Your task to perform on an android device: turn off priority inbox in the gmail app Image 0: 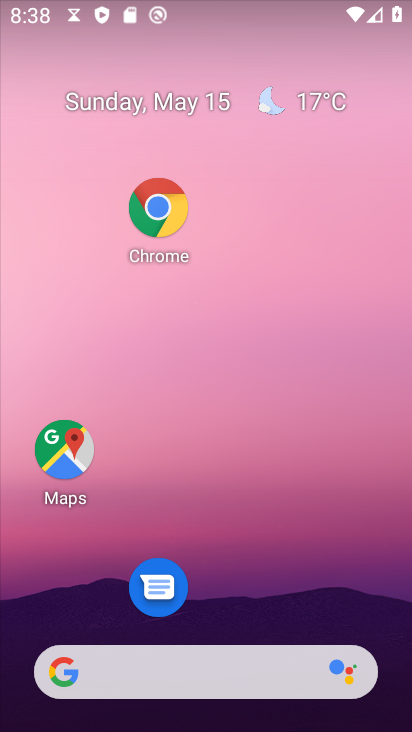
Step 0: drag from (135, 63) to (291, 22)
Your task to perform on an android device: turn off priority inbox in the gmail app Image 1: 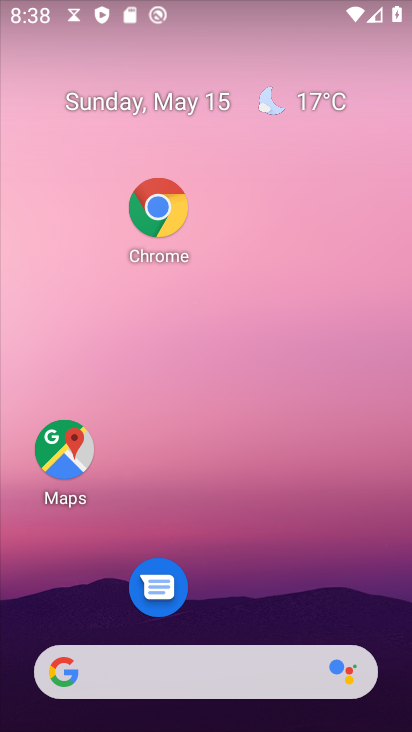
Step 1: click (162, 190)
Your task to perform on an android device: turn off priority inbox in the gmail app Image 2: 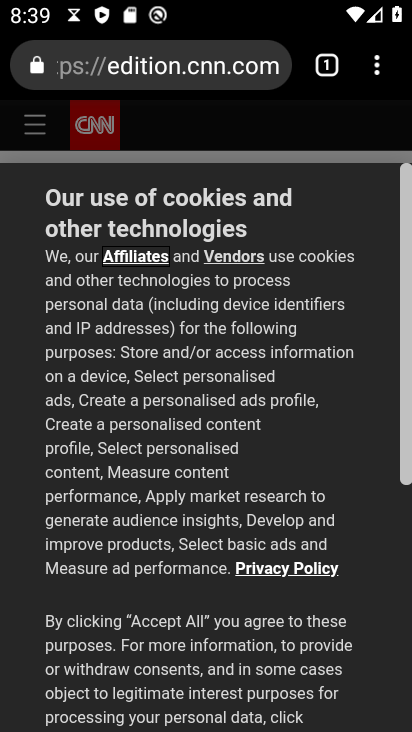
Step 2: drag from (329, 596) to (189, 0)
Your task to perform on an android device: turn off priority inbox in the gmail app Image 3: 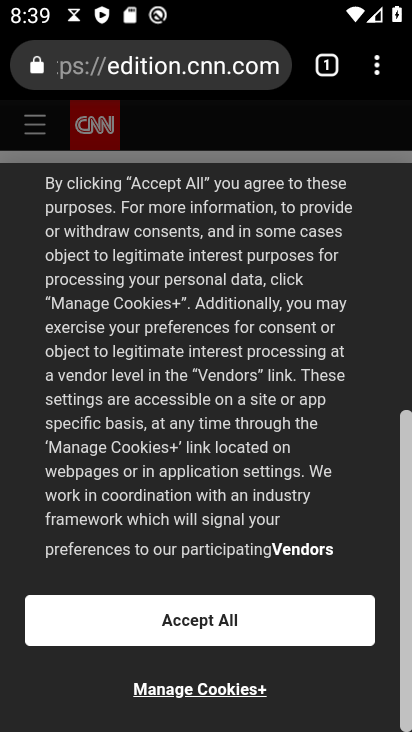
Step 3: drag from (154, 94) to (188, 0)
Your task to perform on an android device: turn off priority inbox in the gmail app Image 4: 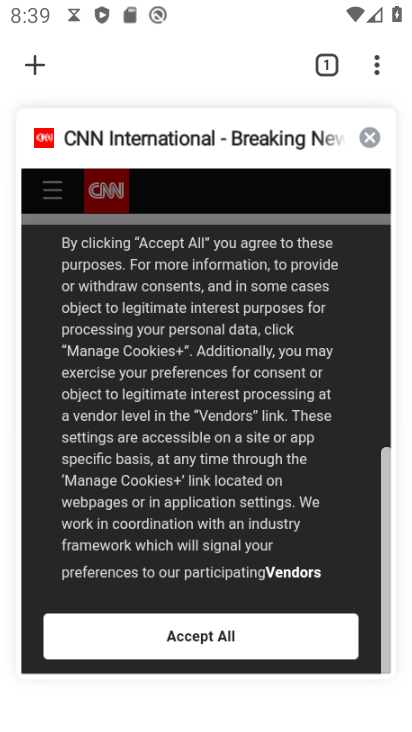
Step 4: click (375, 71)
Your task to perform on an android device: turn off priority inbox in the gmail app Image 5: 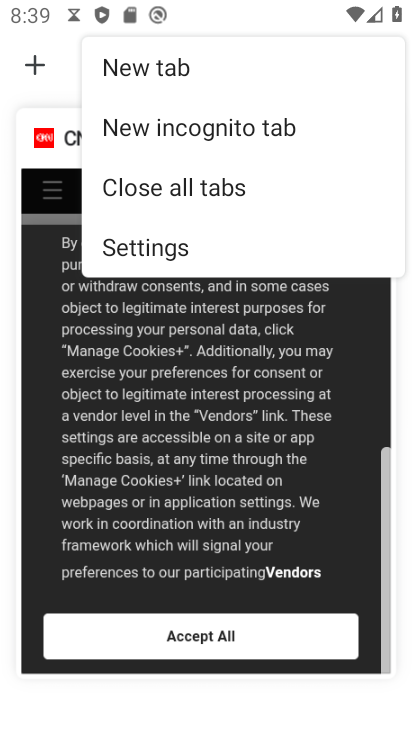
Step 5: drag from (287, 172) to (140, 254)
Your task to perform on an android device: turn off priority inbox in the gmail app Image 6: 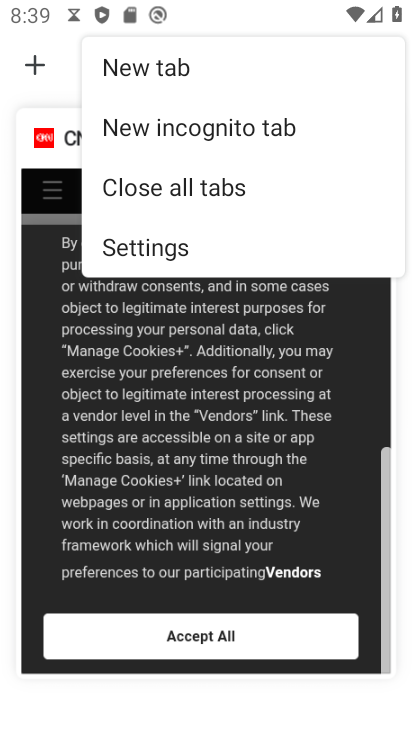
Step 6: click (142, 254)
Your task to perform on an android device: turn off priority inbox in the gmail app Image 7: 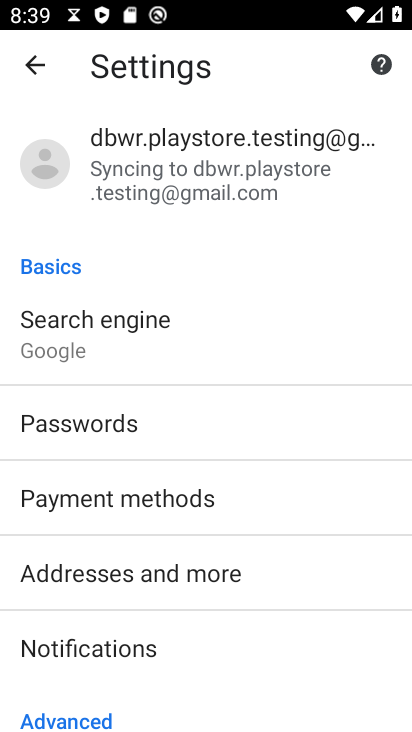
Step 7: drag from (157, 556) to (104, 247)
Your task to perform on an android device: turn off priority inbox in the gmail app Image 8: 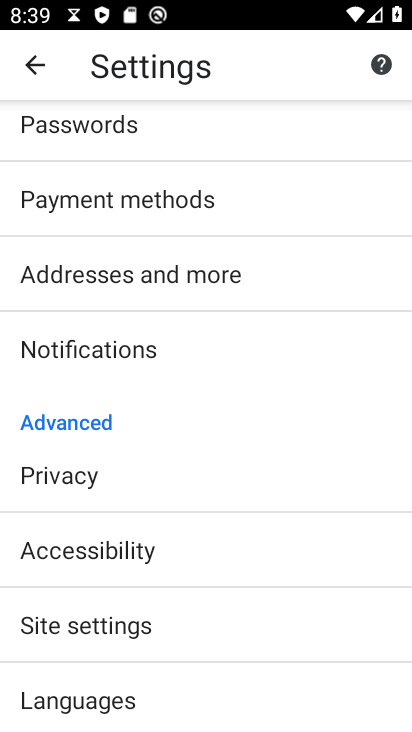
Step 8: press home button
Your task to perform on an android device: turn off priority inbox in the gmail app Image 9: 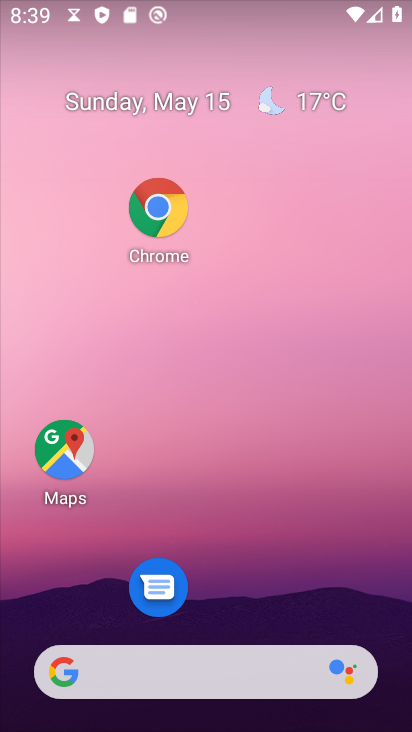
Step 9: drag from (209, 698) to (215, 249)
Your task to perform on an android device: turn off priority inbox in the gmail app Image 10: 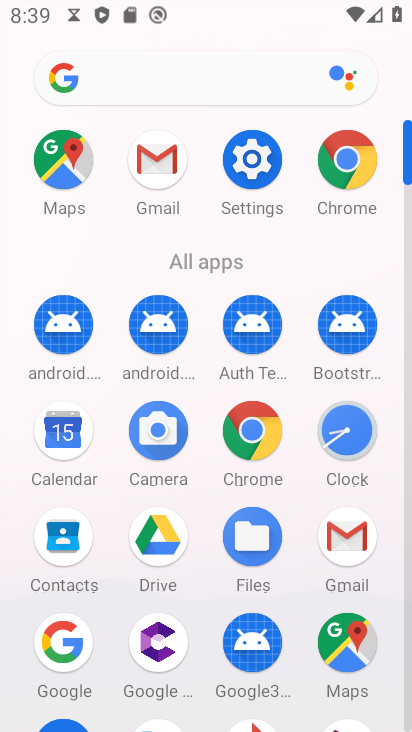
Step 10: click (361, 534)
Your task to perform on an android device: turn off priority inbox in the gmail app Image 11: 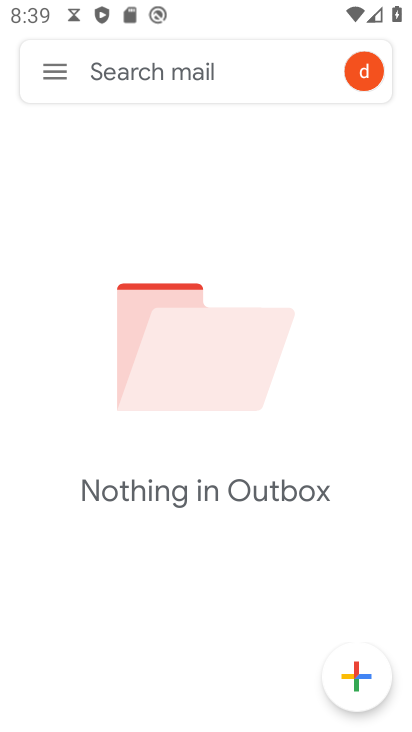
Step 11: click (54, 74)
Your task to perform on an android device: turn off priority inbox in the gmail app Image 12: 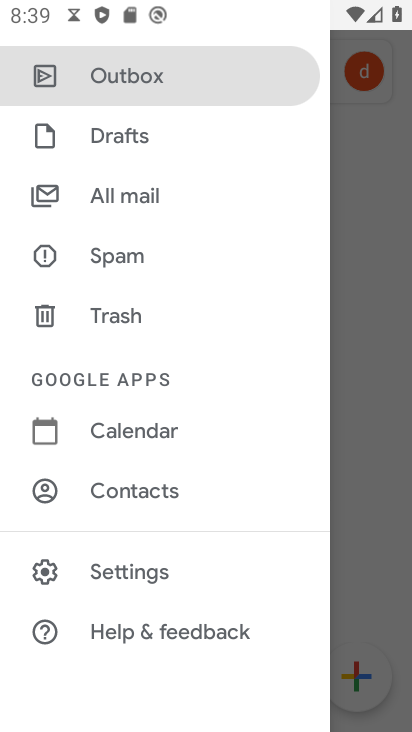
Step 12: click (123, 573)
Your task to perform on an android device: turn off priority inbox in the gmail app Image 13: 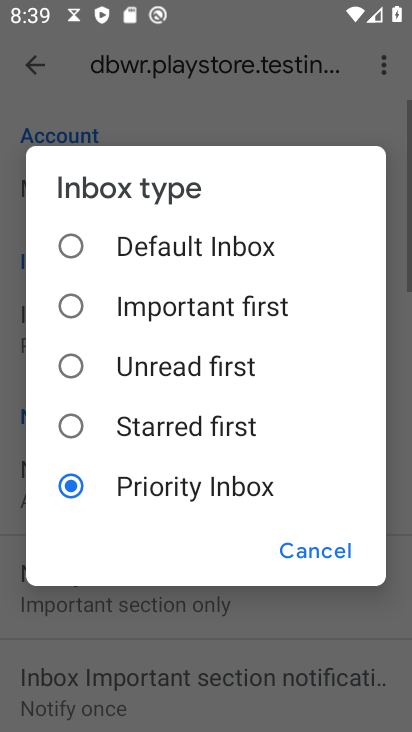
Step 13: click (76, 434)
Your task to perform on an android device: turn off priority inbox in the gmail app Image 14: 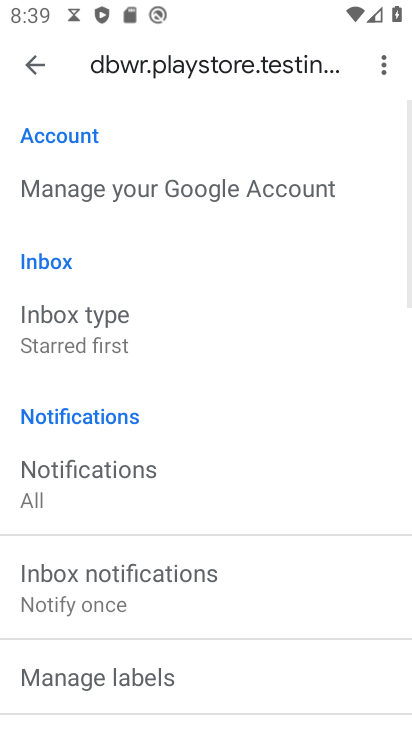
Step 14: task complete